Your task to perform on an android device: Go to Maps Image 0: 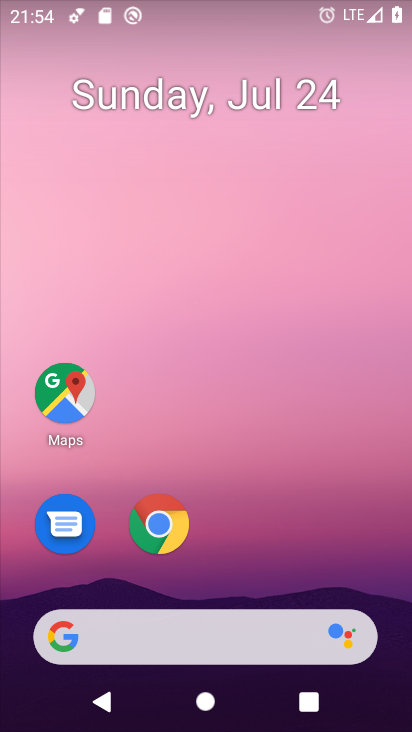
Step 0: click (51, 386)
Your task to perform on an android device: Go to Maps Image 1: 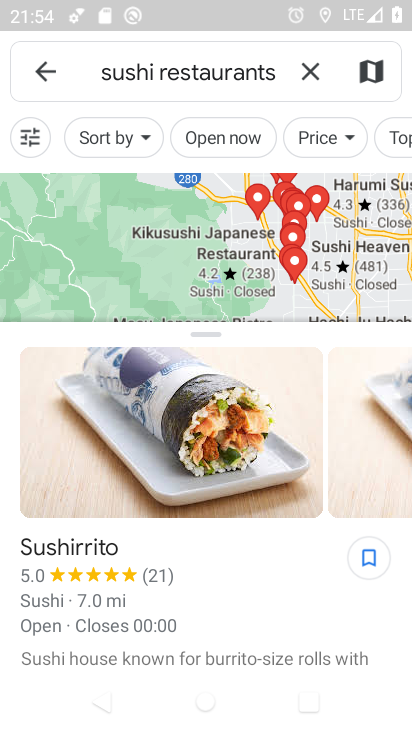
Step 1: click (312, 65)
Your task to perform on an android device: Go to Maps Image 2: 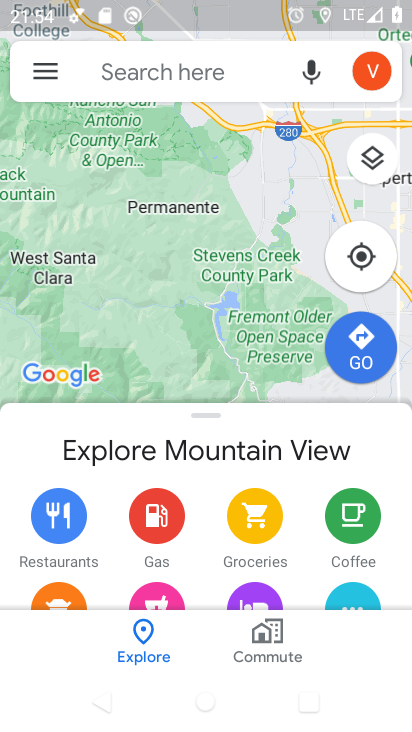
Step 2: task complete